Your task to perform on an android device: Go to ESPN.com Image 0: 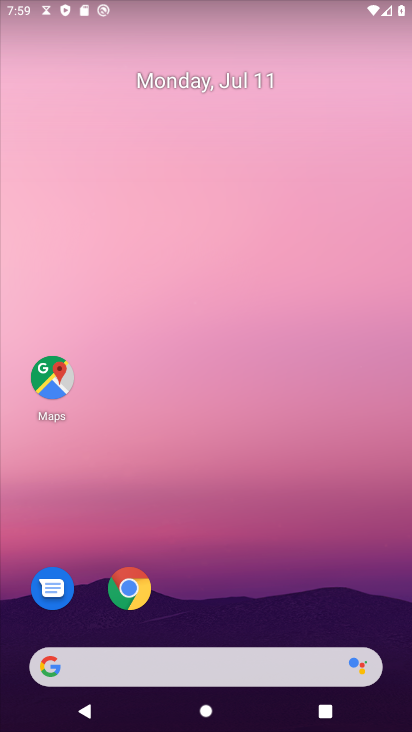
Step 0: press home button
Your task to perform on an android device: Go to ESPN.com Image 1: 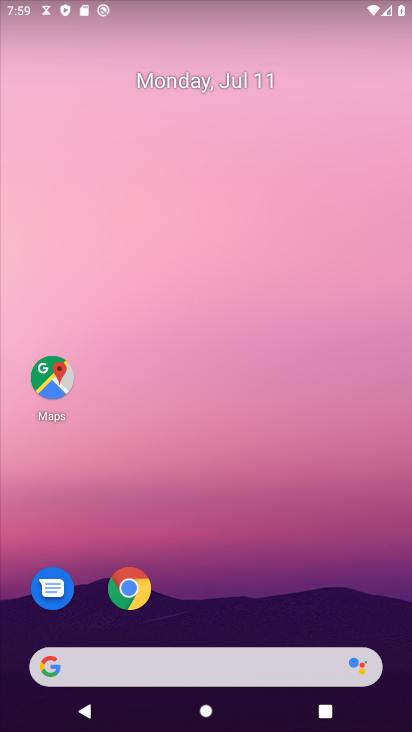
Step 1: drag from (309, 600) to (248, 71)
Your task to perform on an android device: Go to ESPN.com Image 2: 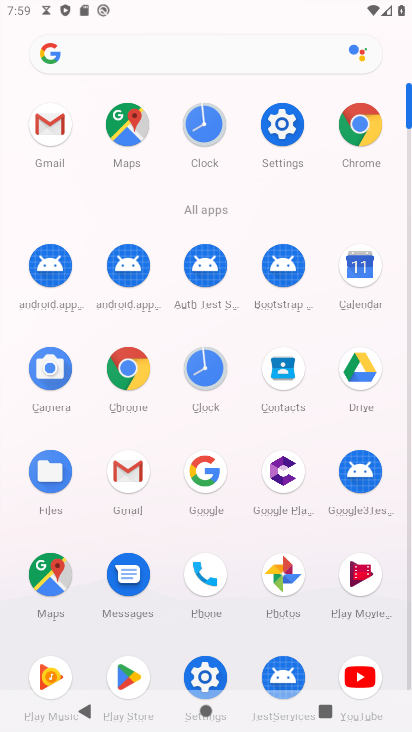
Step 2: click (203, 485)
Your task to perform on an android device: Go to ESPN.com Image 3: 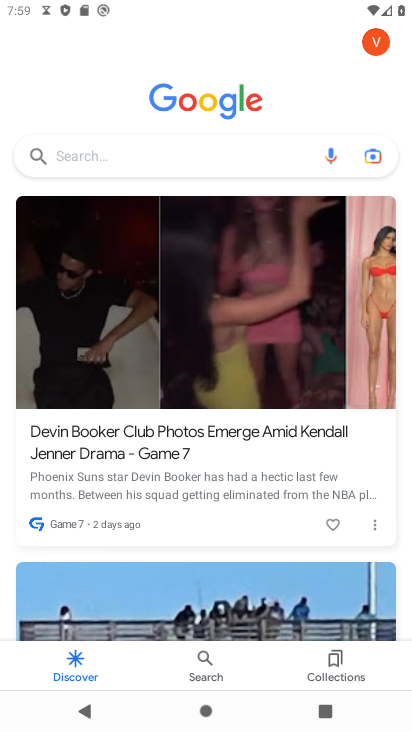
Step 3: click (95, 145)
Your task to perform on an android device: Go to ESPN.com Image 4: 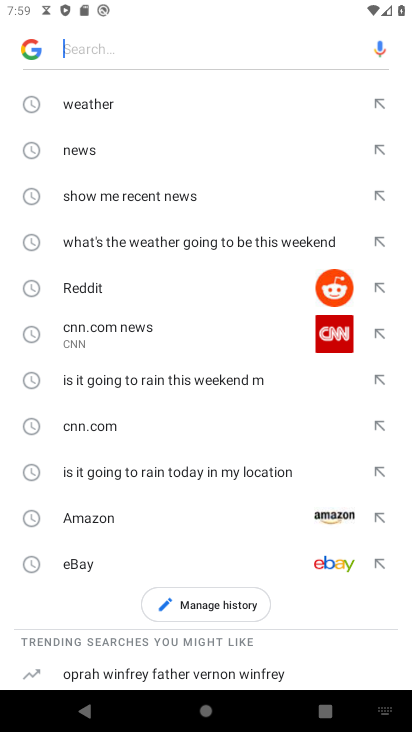
Step 4: type "ESPN.com"
Your task to perform on an android device: Go to ESPN.com Image 5: 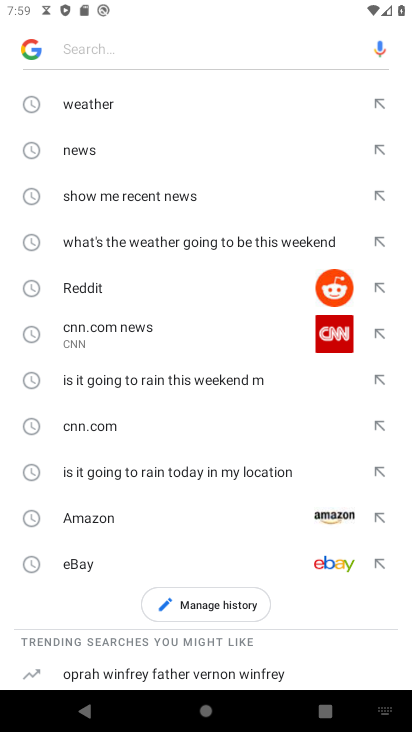
Step 5: click (100, 49)
Your task to perform on an android device: Go to ESPN.com Image 6: 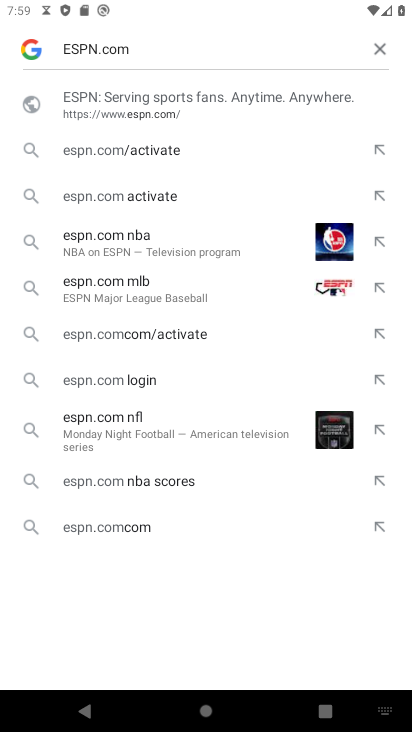
Step 6: click (228, 92)
Your task to perform on an android device: Go to ESPN.com Image 7: 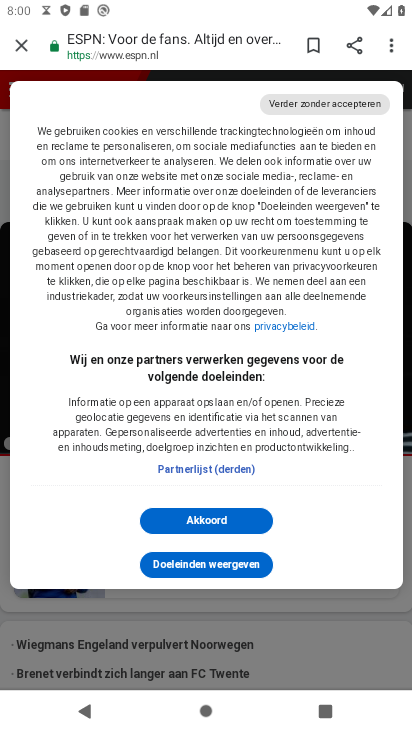
Step 7: task complete